Your task to perform on an android device: toggle notifications settings in the gmail app Image 0: 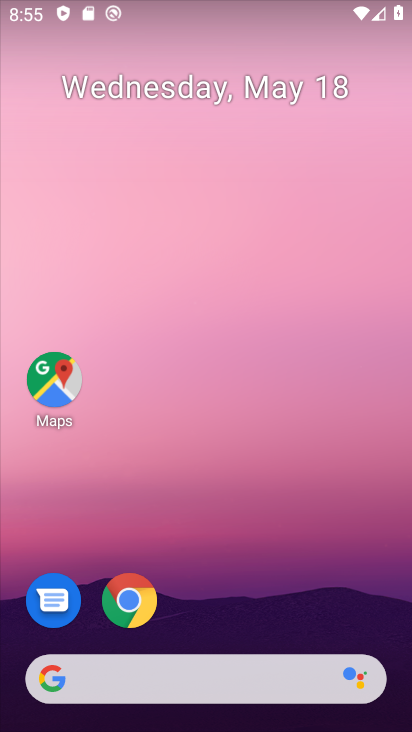
Step 0: drag from (106, 494) to (351, 83)
Your task to perform on an android device: toggle notifications settings in the gmail app Image 1: 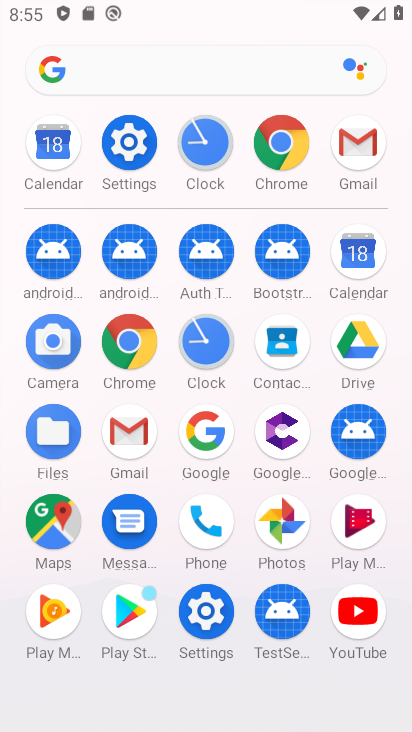
Step 1: click (114, 161)
Your task to perform on an android device: toggle notifications settings in the gmail app Image 2: 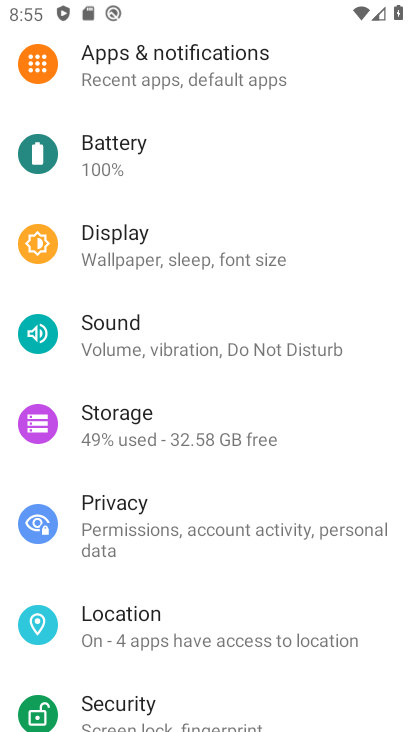
Step 2: click (164, 50)
Your task to perform on an android device: toggle notifications settings in the gmail app Image 3: 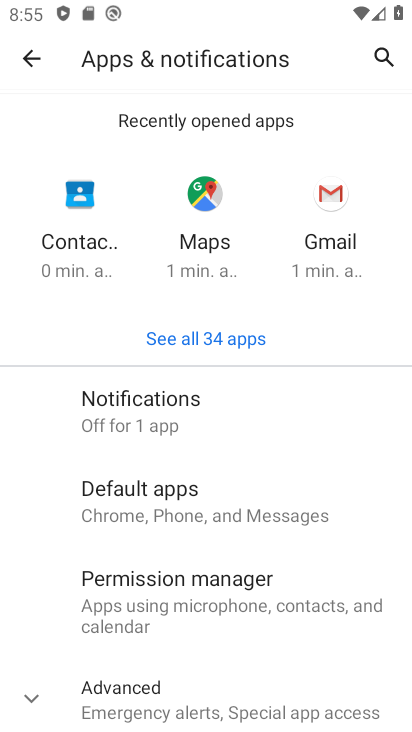
Step 3: click (329, 208)
Your task to perform on an android device: toggle notifications settings in the gmail app Image 4: 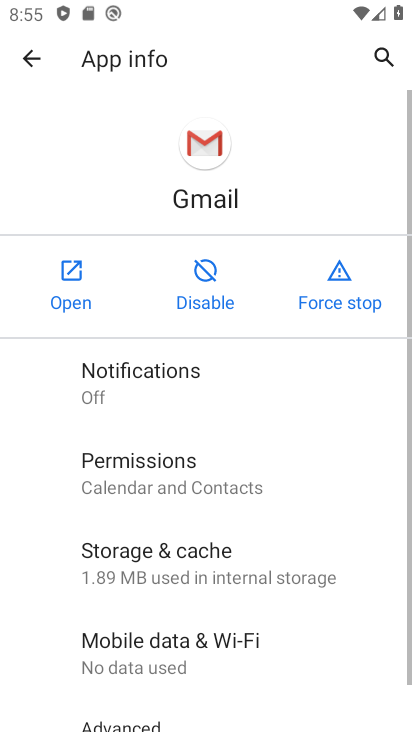
Step 4: click (167, 386)
Your task to perform on an android device: toggle notifications settings in the gmail app Image 5: 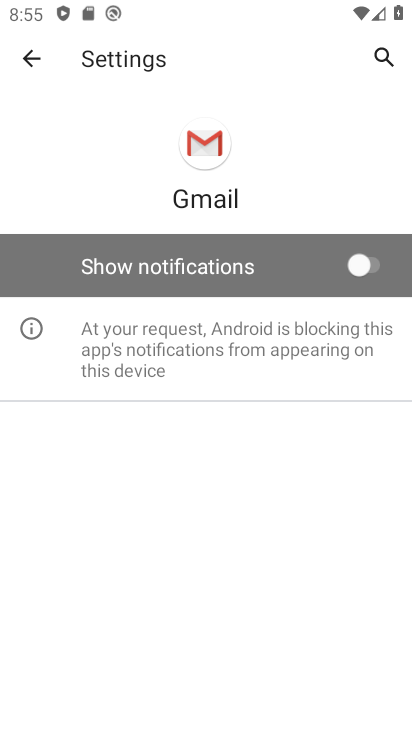
Step 5: click (351, 266)
Your task to perform on an android device: toggle notifications settings in the gmail app Image 6: 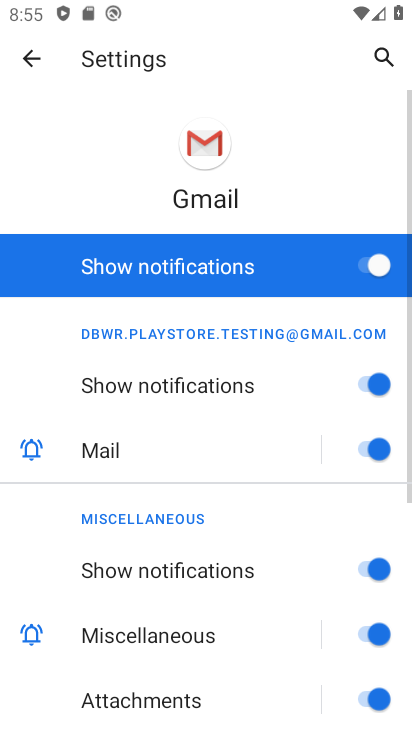
Step 6: task complete